Your task to perform on an android device: See recent photos Image 0: 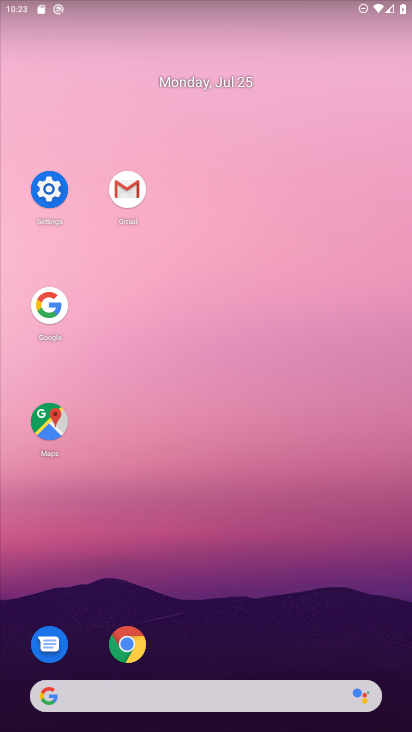
Step 0: drag from (282, 510) to (320, 178)
Your task to perform on an android device: See recent photos Image 1: 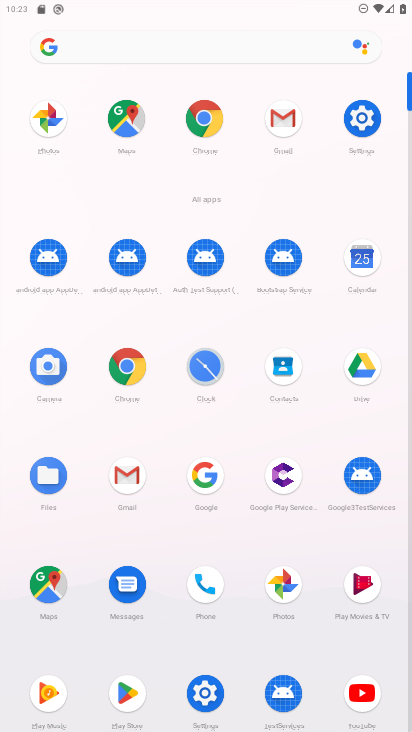
Step 1: drag from (286, 587) to (141, 330)
Your task to perform on an android device: See recent photos Image 2: 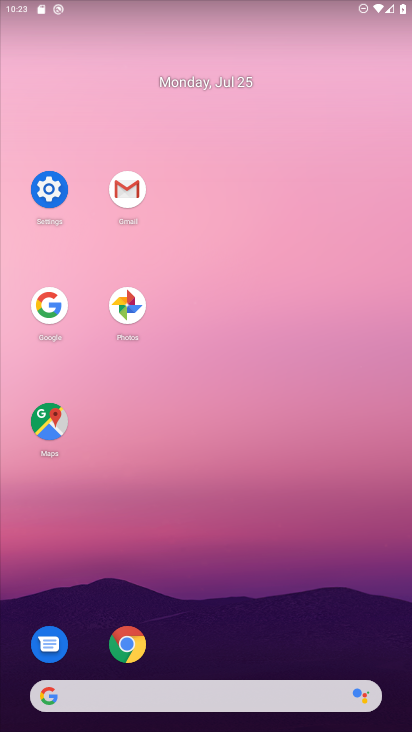
Step 2: click (139, 313)
Your task to perform on an android device: See recent photos Image 3: 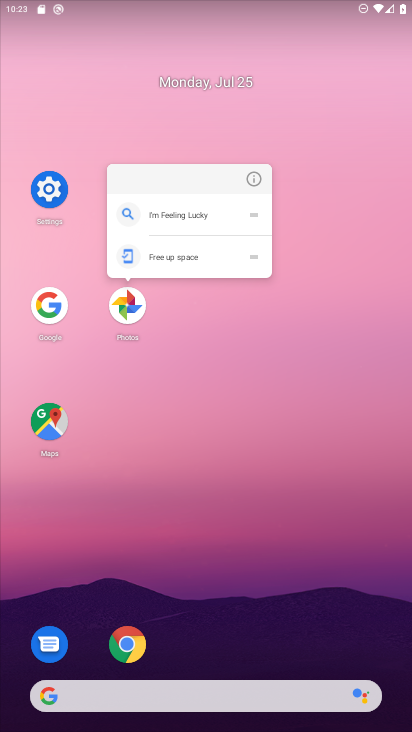
Step 3: click (139, 313)
Your task to perform on an android device: See recent photos Image 4: 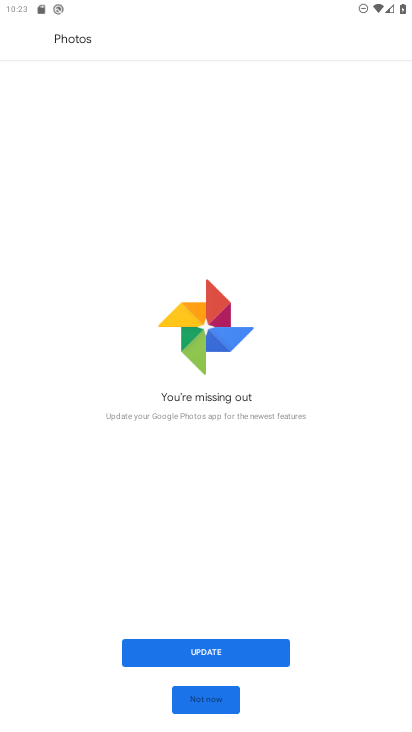
Step 4: click (149, 647)
Your task to perform on an android device: See recent photos Image 5: 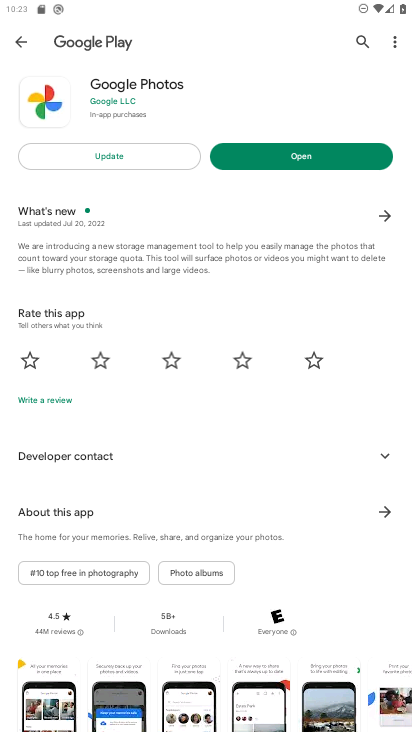
Step 5: click (122, 156)
Your task to perform on an android device: See recent photos Image 6: 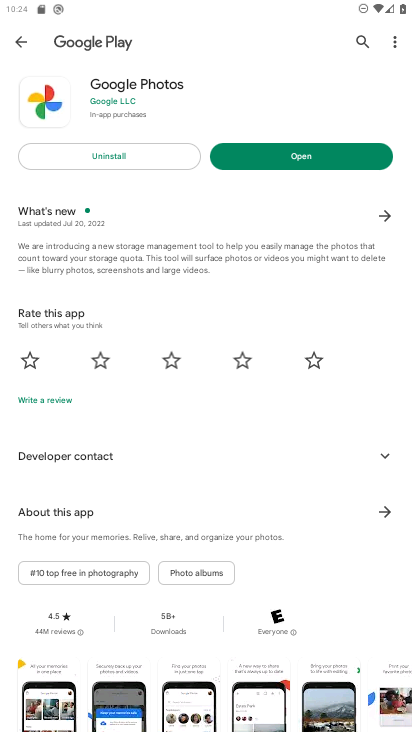
Step 6: click (324, 161)
Your task to perform on an android device: See recent photos Image 7: 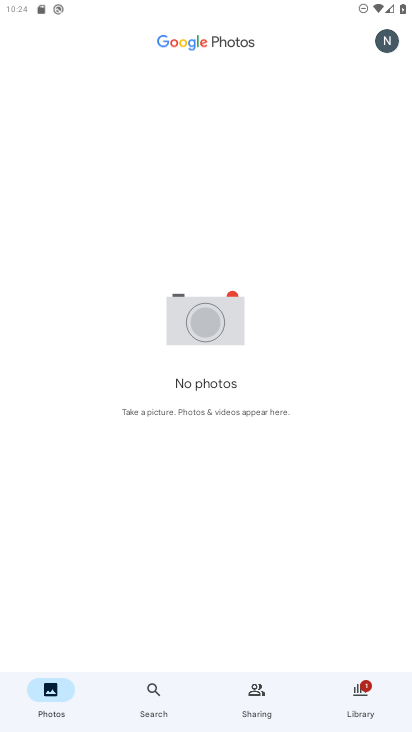
Step 7: task complete